Your task to perform on an android device: delete browsing data in the chrome app Image 0: 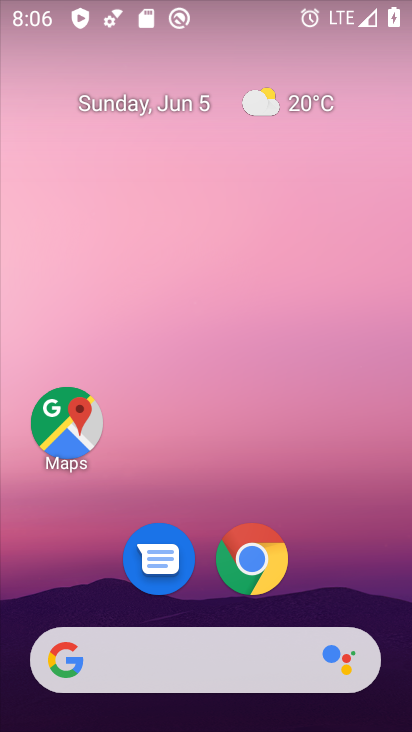
Step 0: click (248, 560)
Your task to perform on an android device: delete browsing data in the chrome app Image 1: 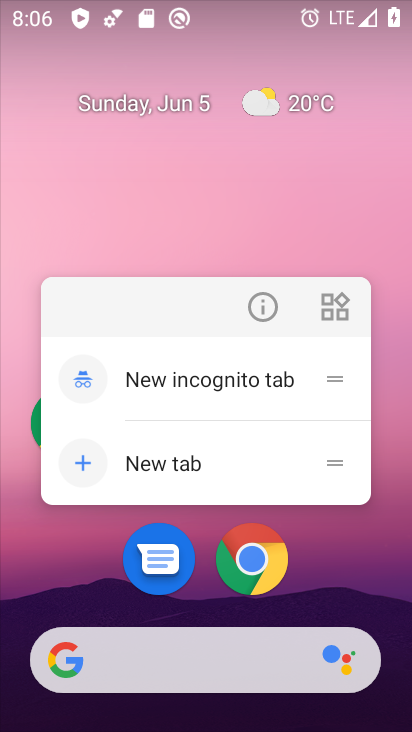
Step 1: click (256, 543)
Your task to perform on an android device: delete browsing data in the chrome app Image 2: 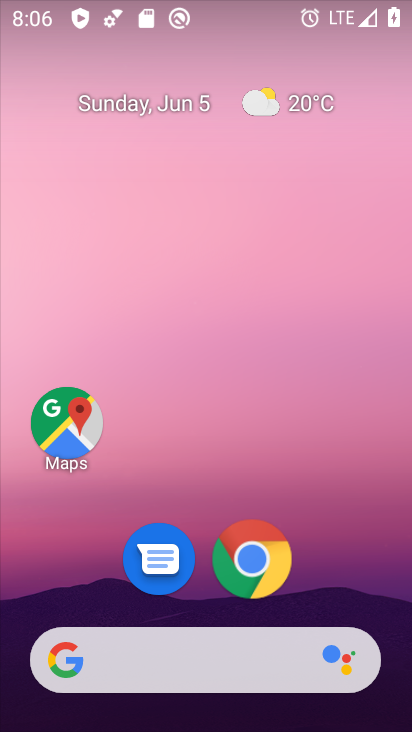
Step 2: click (249, 565)
Your task to perform on an android device: delete browsing data in the chrome app Image 3: 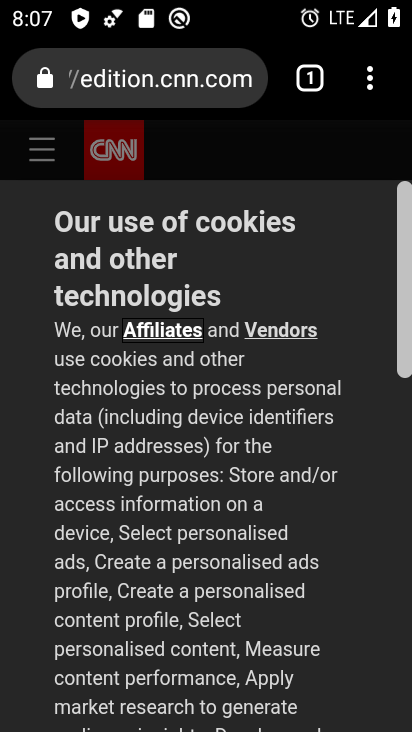
Step 3: drag from (371, 78) to (87, 431)
Your task to perform on an android device: delete browsing data in the chrome app Image 4: 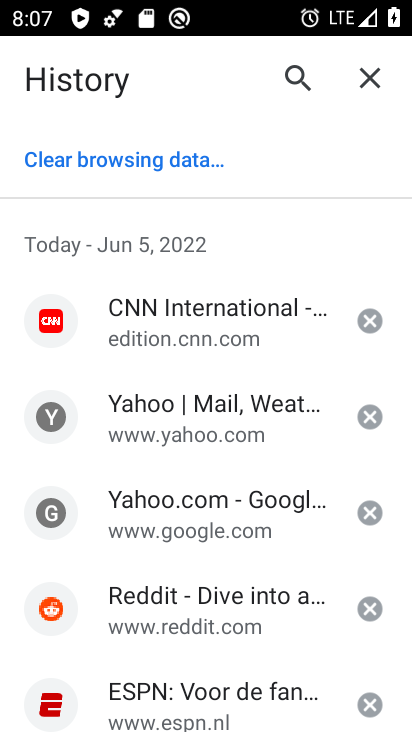
Step 4: click (156, 152)
Your task to perform on an android device: delete browsing data in the chrome app Image 5: 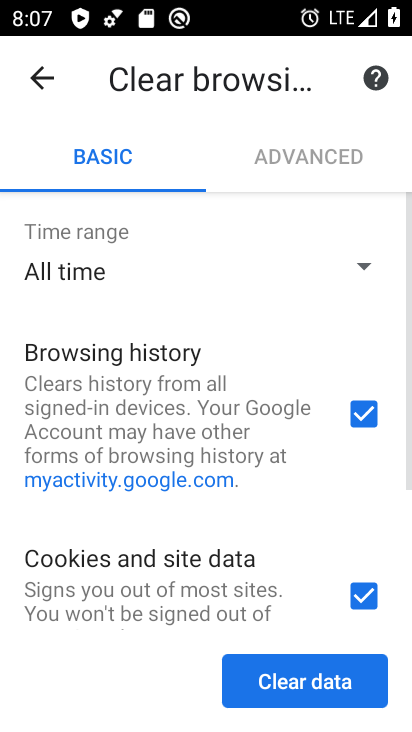
Step 5: drag from (289, 497) to (280, 58)
Your task to perform on an android device: delete browsing data in the chrome app Image 6: 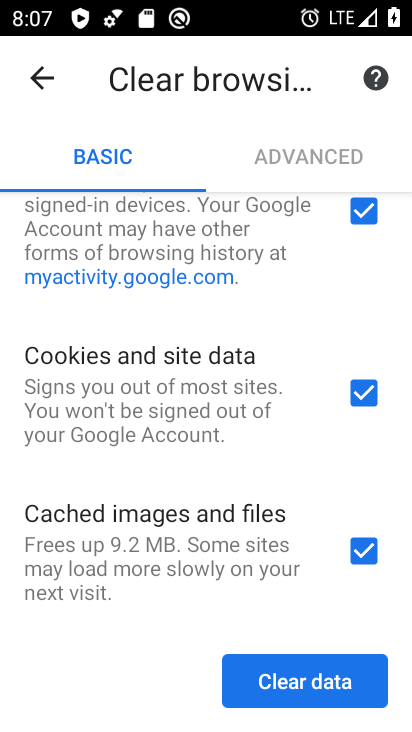
Step 6: click (331, 694)
Your task to perform on an android device: delete browsing data in the chrome app Image 7: 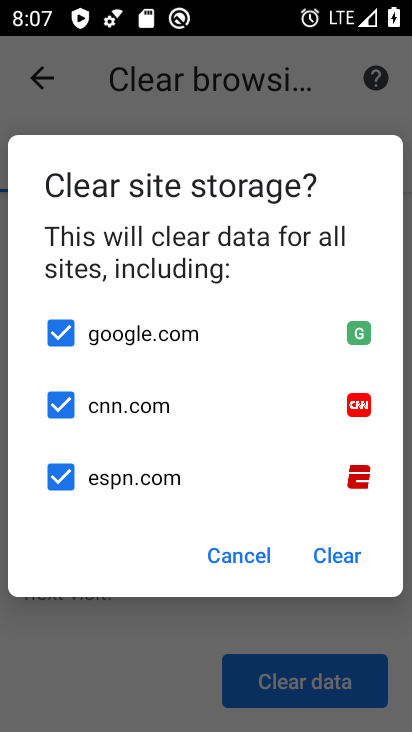
Step 7: click (355, 556)
Your task to perform on an android device: delete browsing data in the chrome app Image 8: 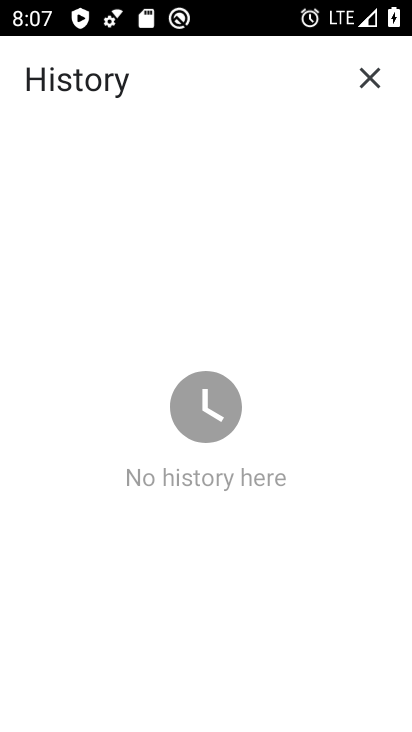
Step 8: task complete